Your task to perform on an android device: Set the phone to "Do not disturb". Image 0: 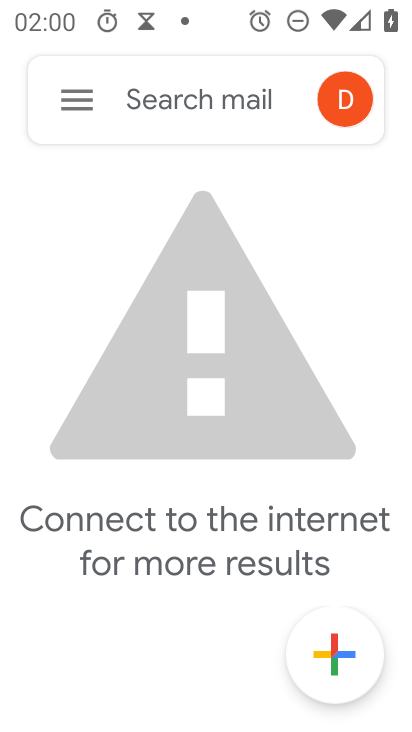
Step 0: press home button
Your task to perform on an android device: Set the phone to "Do not disturb". Image 1: 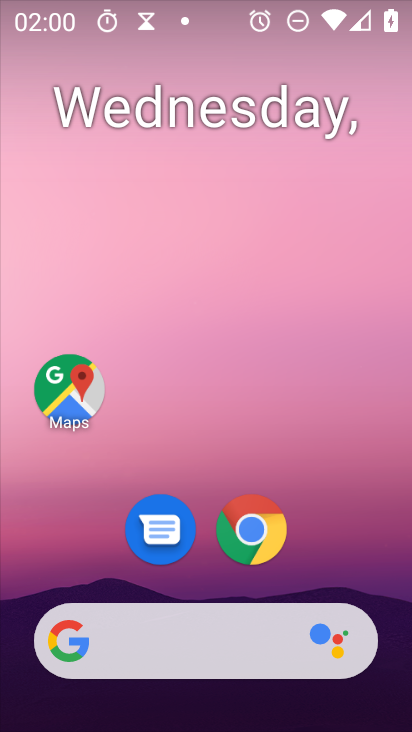
Step 1: drag from (237, 639) to (233, 13)
Your task to perform on an android device: Set the phone to "Do not disturb". Image 2: 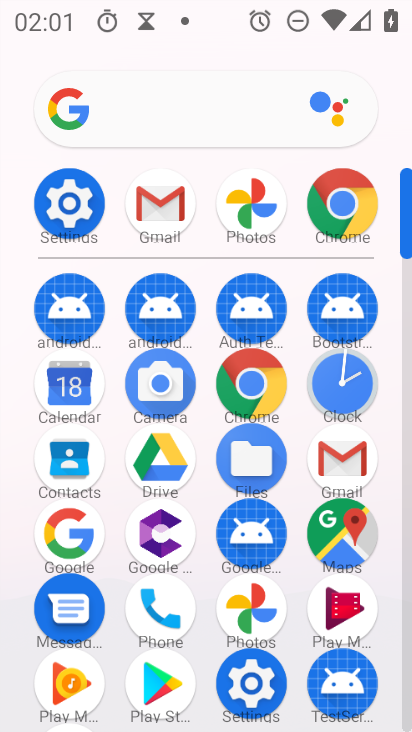
Step 2: click (86, 207)
Your task to perform on an android device: Set the phone to "Do not disturb". Image 3: 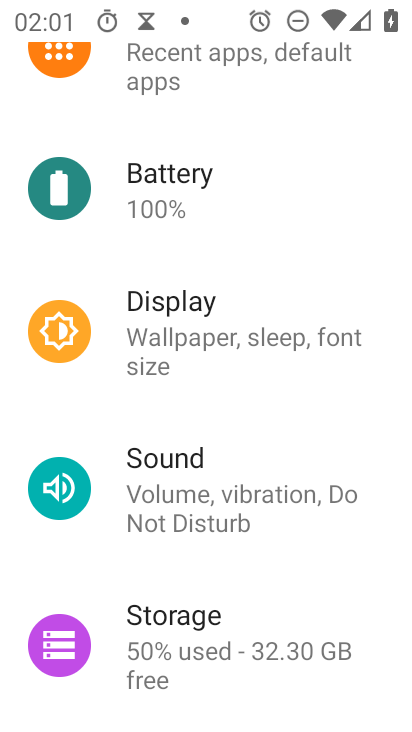
Step 3: drag from (254, 293) to (246, 718)
Your task to perform on an android device: Set the phone to "Do not disturb". Image 4: 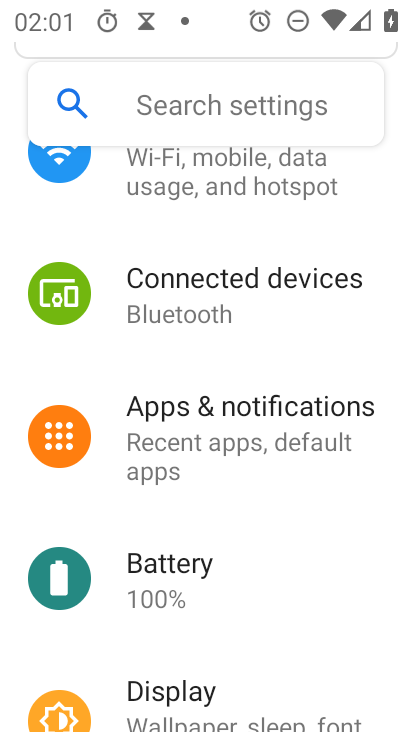
Step 4: drag from (268, 600) to (314, 174)
Your task to perform on an android device: Set the phone to "Do not disturb". Image 5: 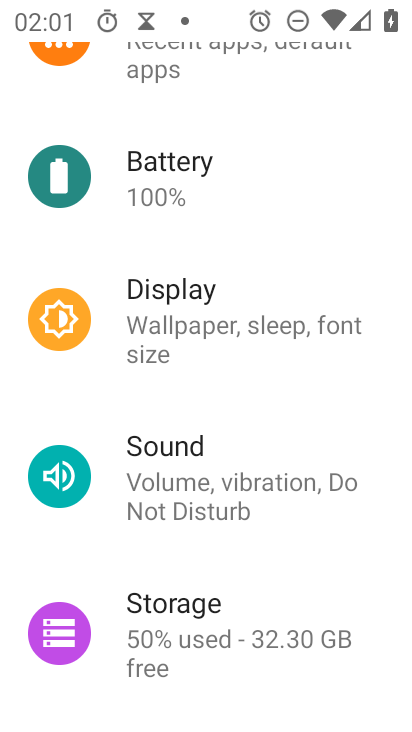
Step 5: click (255, 474)
Your task to perform on an android device: Set the phone to "Do not disturb". Image 6: 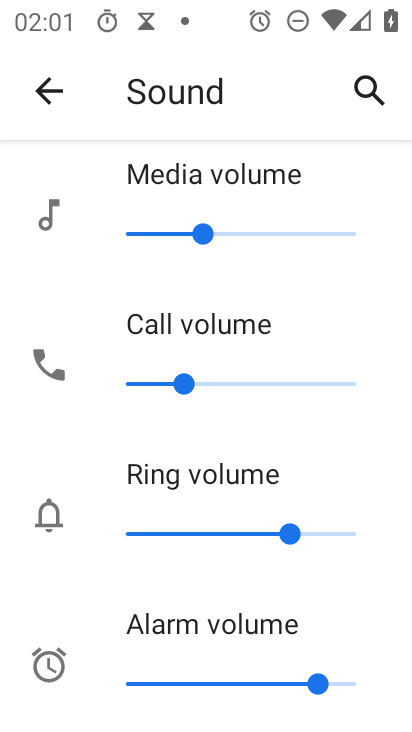
Step 6: drag from (241, 638) to (276, 167)
Your task to perform on an android device: Set the phone to "Do not disturb". Image 7: 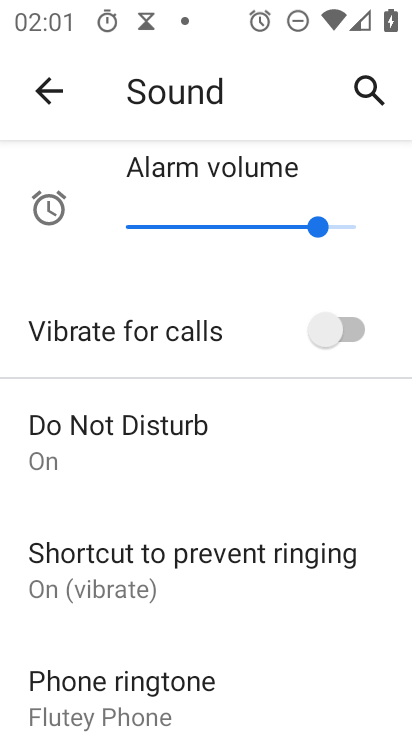
Step 7: click (160, 411)
Your task to perform on an android device: Set the phone to "Do not disturb". Image 8: 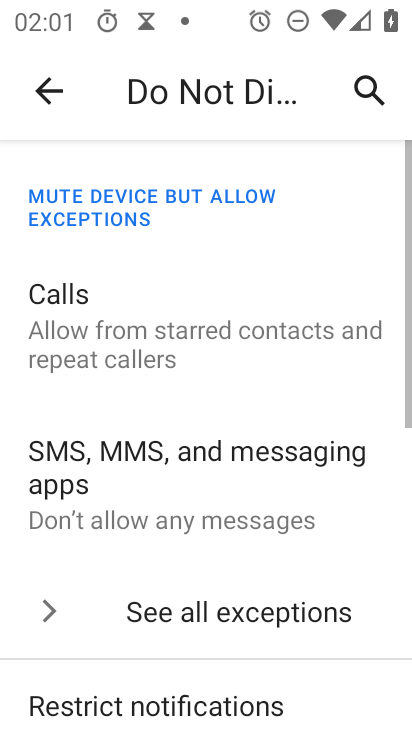
Step 8: task complete